Your task to perform on an android device: Go to eBay Image 0: 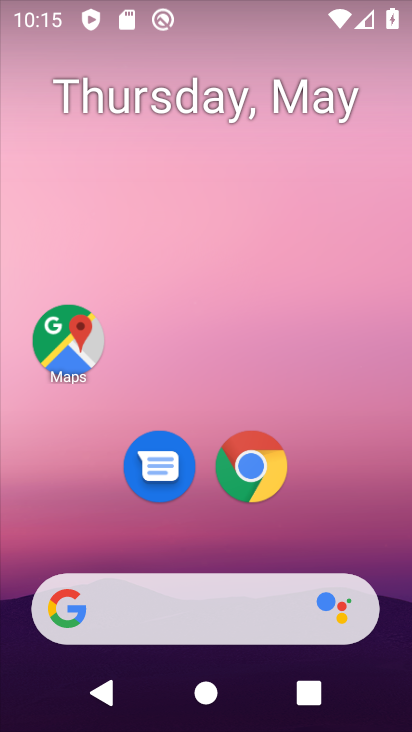
Step 0: click (265, 477)
Your task to perform on an android device: Go to eBay Image 1: 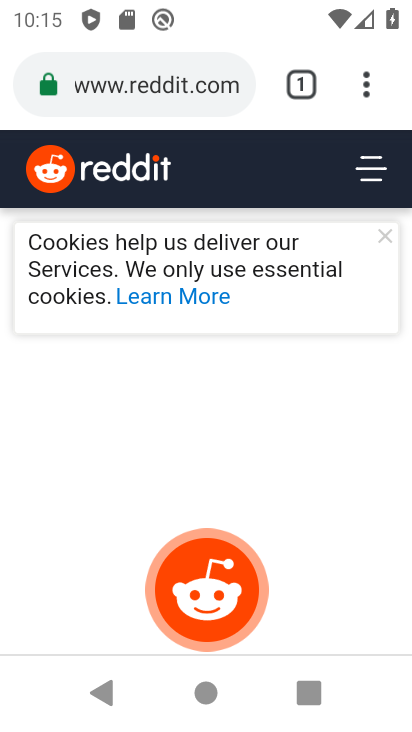
Step 1: click (182, 70)
Your task to perform on an android device: Go to eBay Image 2: 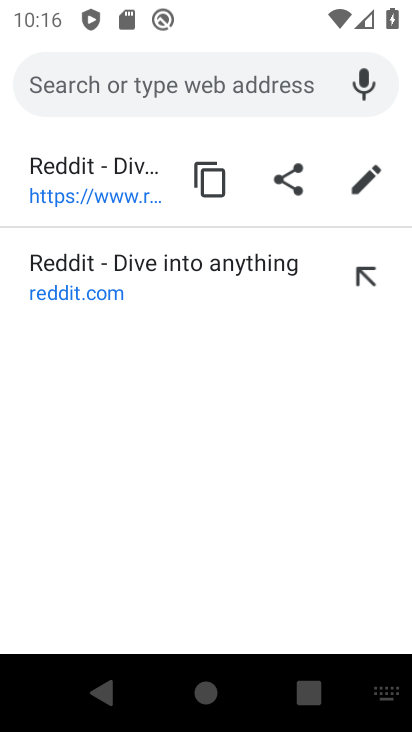
Step 2: type "ebay"
Your task to perform on an android device: Go to eBay Image 3: 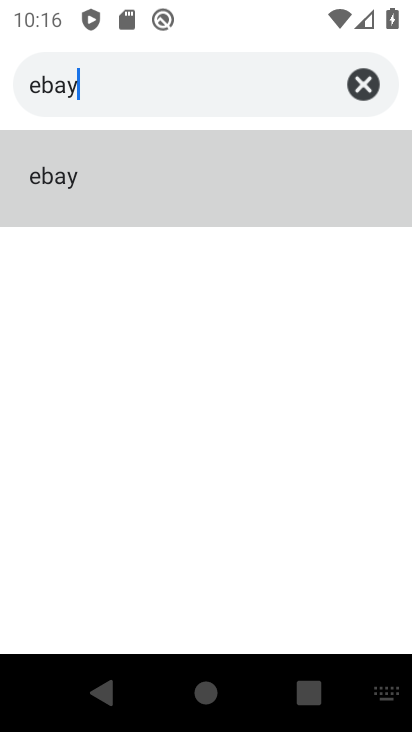
Step 3: click (69, 185)
Your task to perform on an android device: Go to eBay Image 4: 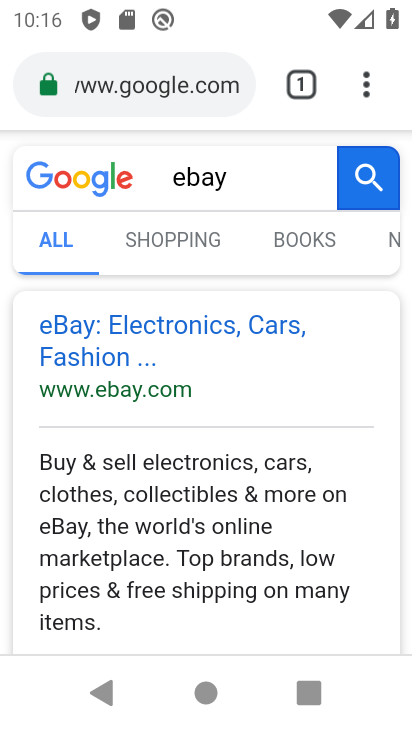
Step 4: click (113, 330)
Your task to perform on an android device: Go to eBay Image 5: 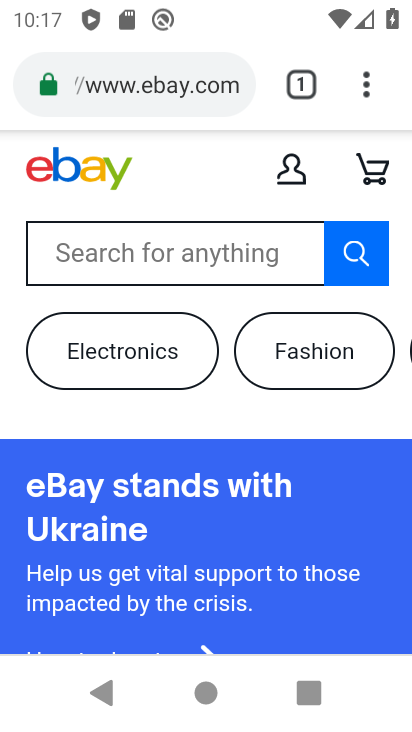
Step 5: task complete